Your task to perform on an android device: Add "razer nari" to the cart on newegg.com Image 0: 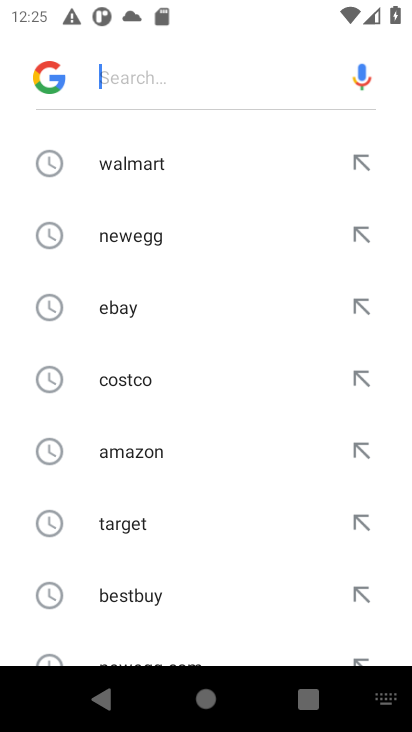
Step 0: click (173, 234)
Your task to perform on an android device: Add "razer nari" to the cart on newegg.com Image 1: 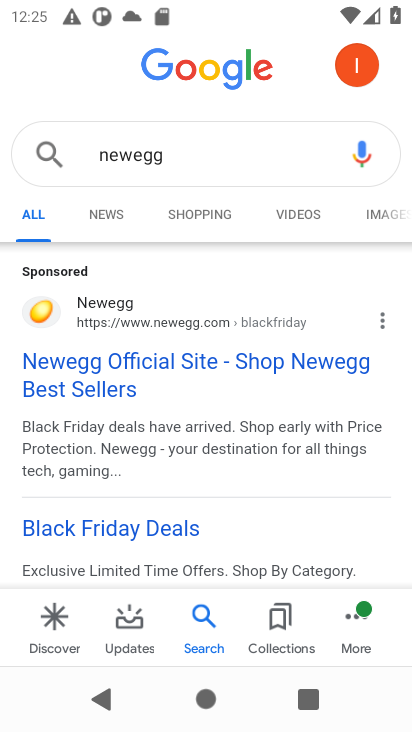
Step 1: click (140, 353)
Your task to perform on an android device: Add "razer nari" to the cart on newegg.com Image 2: 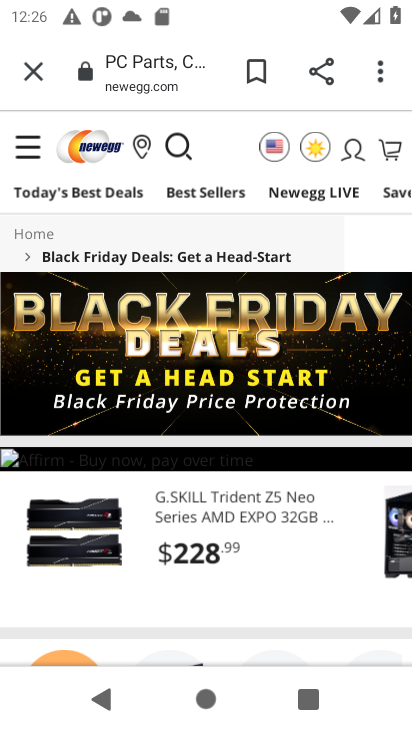
Step 2: click (180, 142)
Your task to perform on an android device: Add "razer nari" to the cart on newegg.com Image 3: 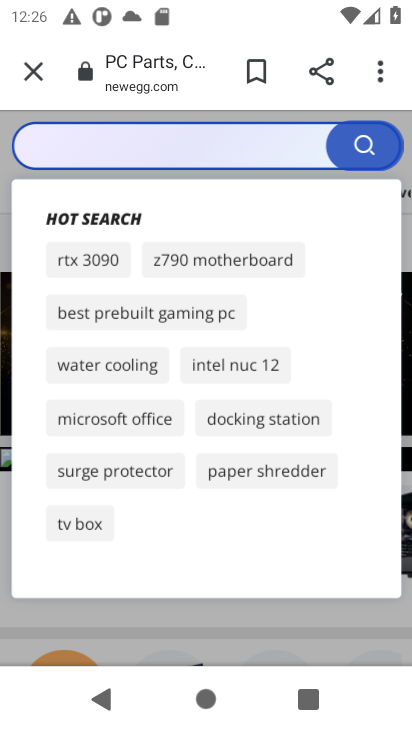
Step 3: type "razer nari"
Your task to perform on an android device: Add "razer nari" to the cart on newegg.com Image 4: 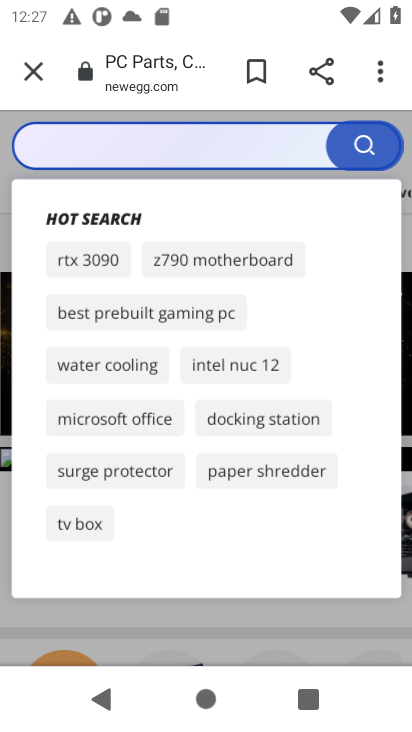
Step 4: task complete